Your task to perform on an android device: open app "DoorDash - Food Delivery" Image 0: 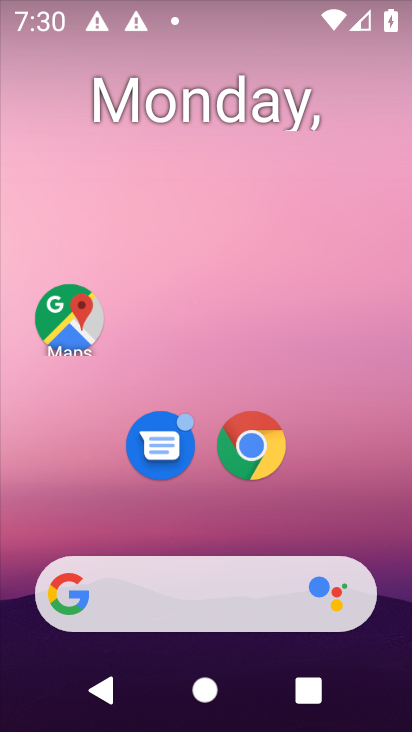
Step 0: drag from (389, 609) to (260, 51)
Your task to perform on an android device: open app "DoorDash - Food Delivery" Image 1: 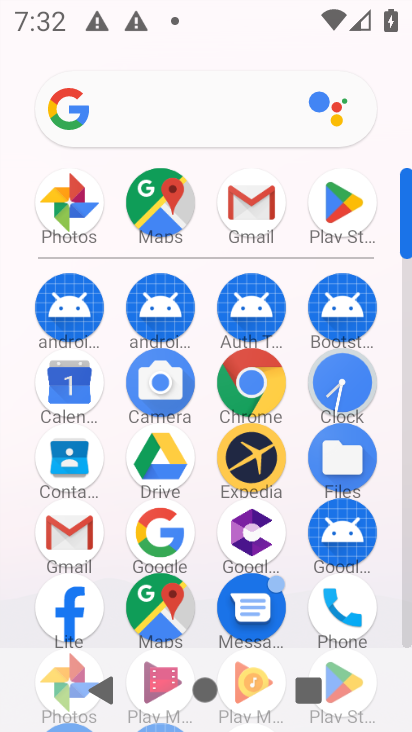
Step 1: click (332, 210)
Your task to perform on an android device: open app "DoorDash - Food Delivery" Image 2: 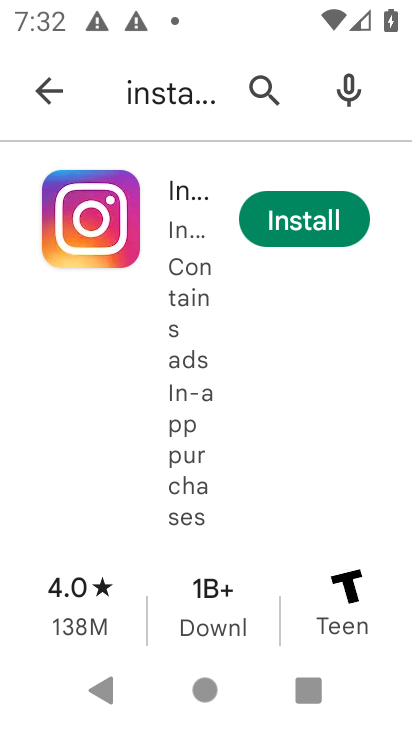
Step 2: press back button
Your task to perform on an android device: open app "DoorDash - Food Delivery" Image 3: 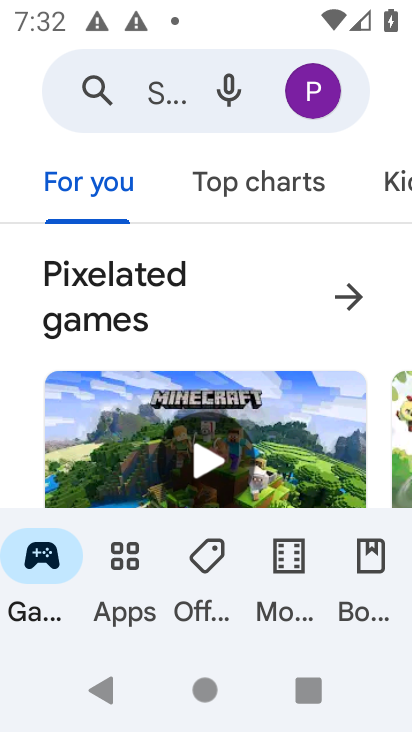
Step 3: click (144, 94)
Your task to perform on an android device: open app "DoorDash - Food Delivery" Image 4: 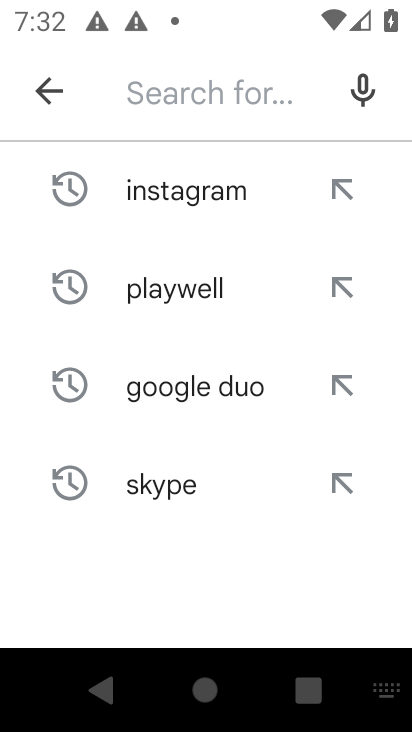
Step 4: type "DoorDash - Food Delivery"
Your task to perform on an android device: open app "DoorDash - Food Delivery" Image 5: 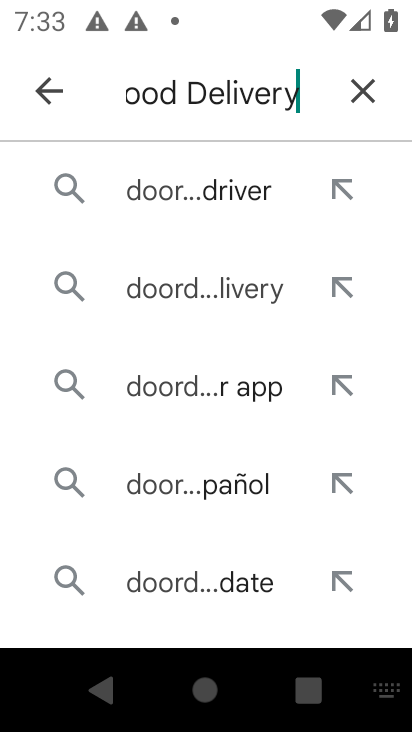
Step 5: click (186, 189)
Your task to perform on an android device: open app "DoorDash - Food Delivery" Image 6: 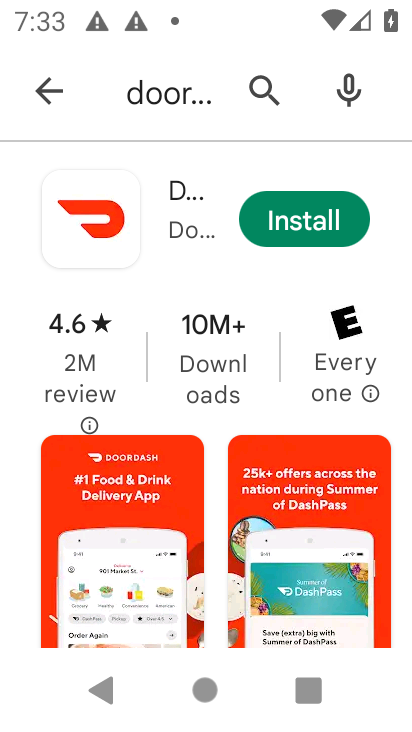
Step 6: task complete